Your task to perform on an android device: turn on translation in the chrome app Image 0: 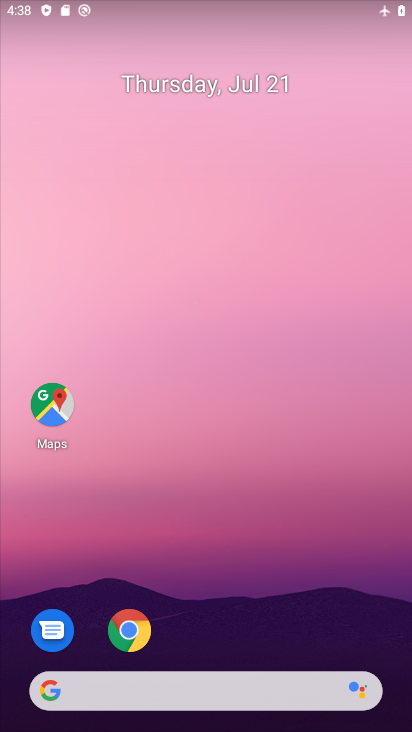
Step 0: press home button
Your task to perform on an android device: turn on translation in the chrome app Image 1: 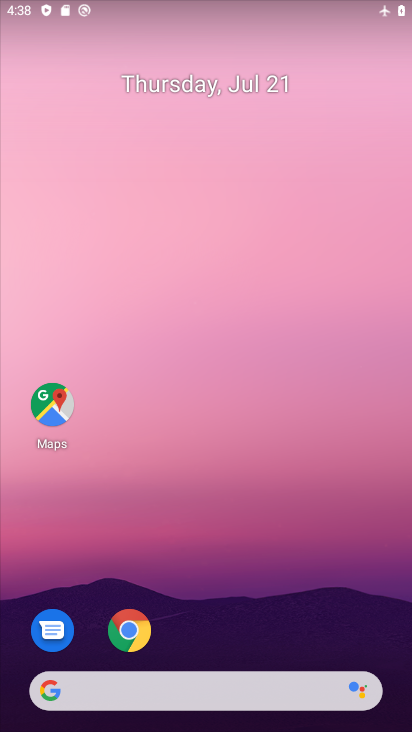
Step 1: click (124, 631)
Your task to perform on an android device: turn on translation in the chrome app Image 2: 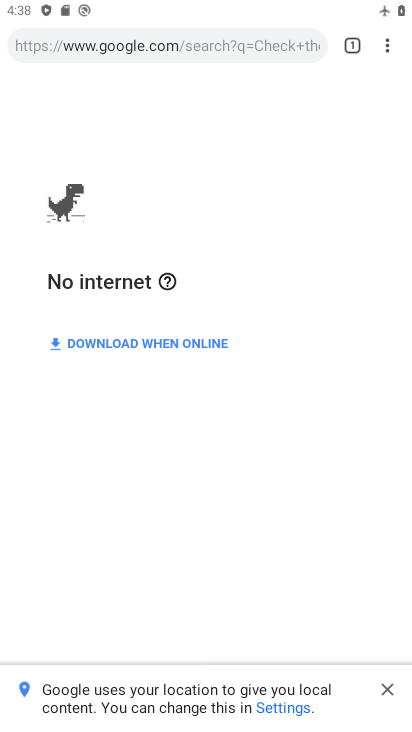
Step 2: click (385, 38)
Your task to perform on an android device: turn on translation in the chrome app Image 3: 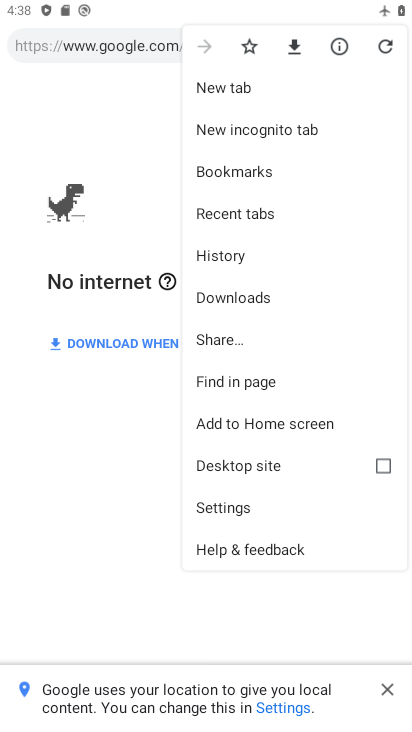
Step 3: click (253, 498)
Your task to perform on an android device: turn on translation in the chrome app Image 4: 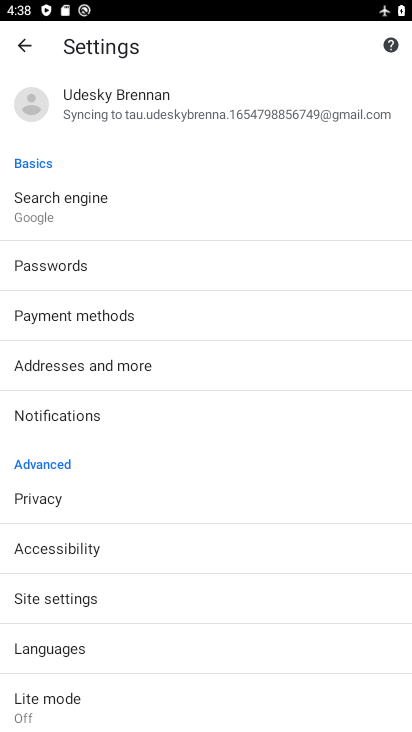
Step 4: click (124, 651)
Your task to perform on an android device: turn on translation in the chrome app Image 5: 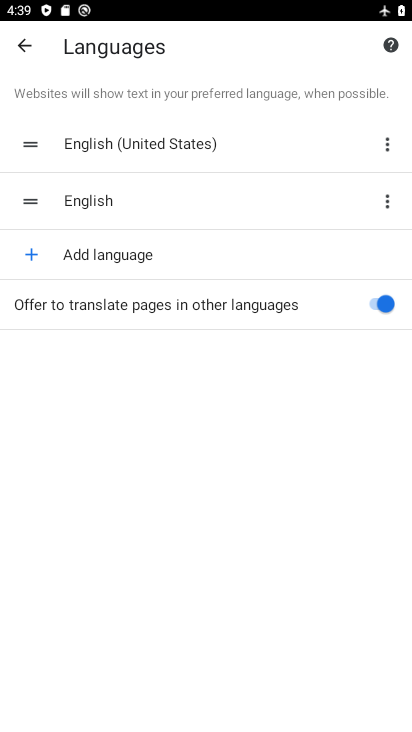
Step 5: task complete